Your task to perform on an android device: Open sound settings Image 0: 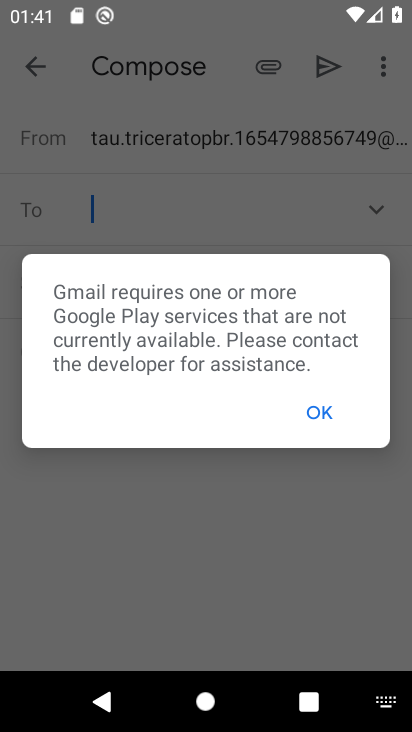
Step 0: press home button
Your task to perform on an android device: Open sound settings Image 1: 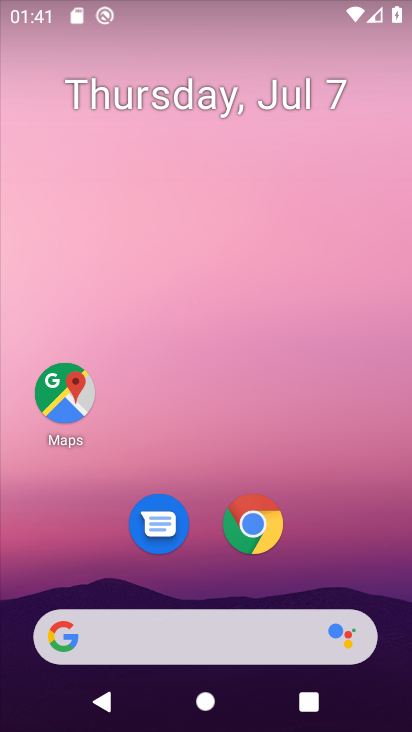
Step 1: drag from (341, 338) to (326, 55)
Your task to perform on an android device: Open sound settings Image 2: 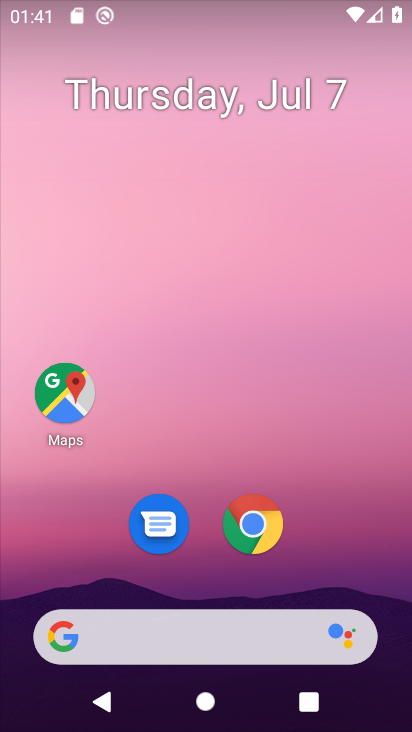
Step 2: drag from (331, 532) to (272, 35)
Your task to perform on an android device: Open sound settings Image 3: 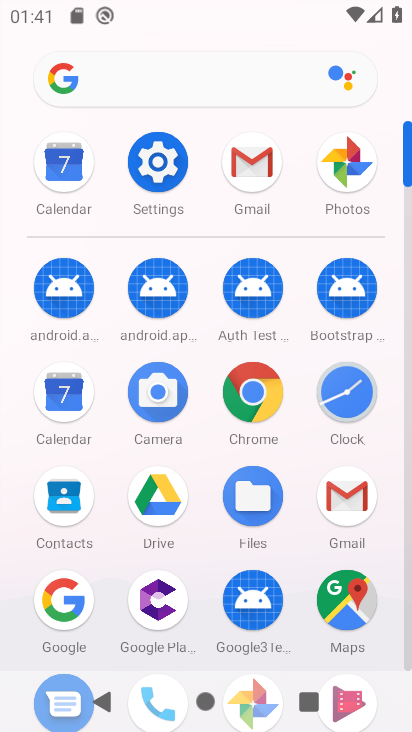
Step 3: click (157, 159)
Your task to perform on an android device: Open sound settings Image 4: 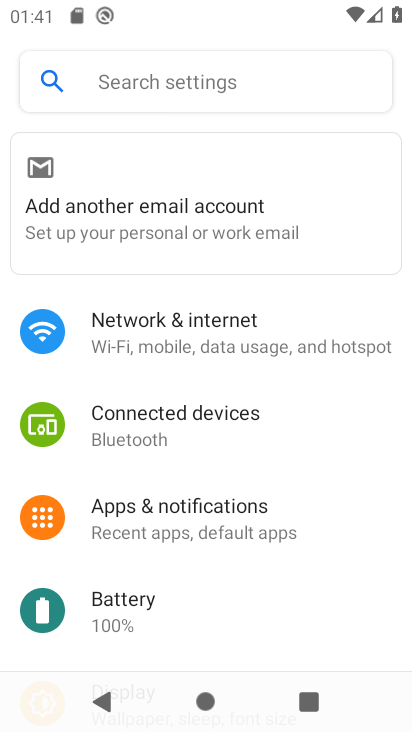
Step 4: drag from (218, 566) to (216, 97)
Your task to perform on an android device: Open sound settings Image 5: 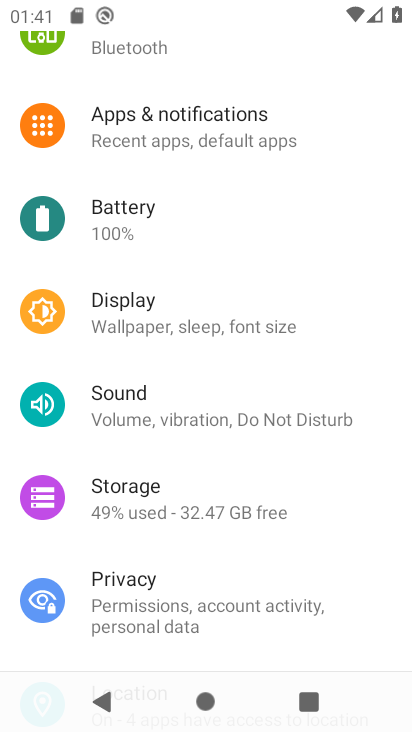
Step 5: click (230, 401)
Your task to perform on an android device: Open sound settings Image 6: 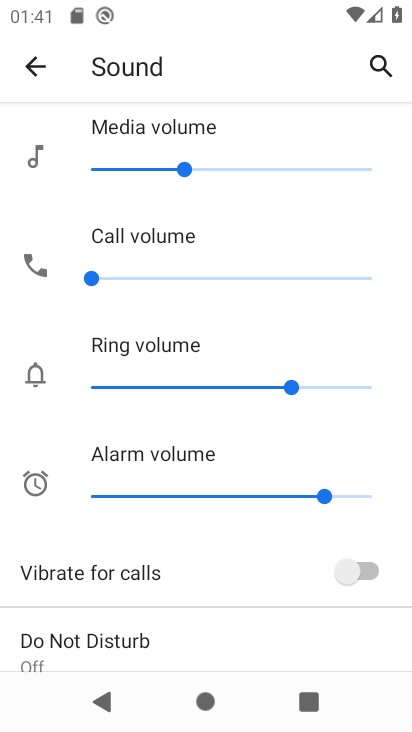
Step 6: task complete